Your task to perform on an android device: open app "Spotify" (install if not already installed) Image 0: 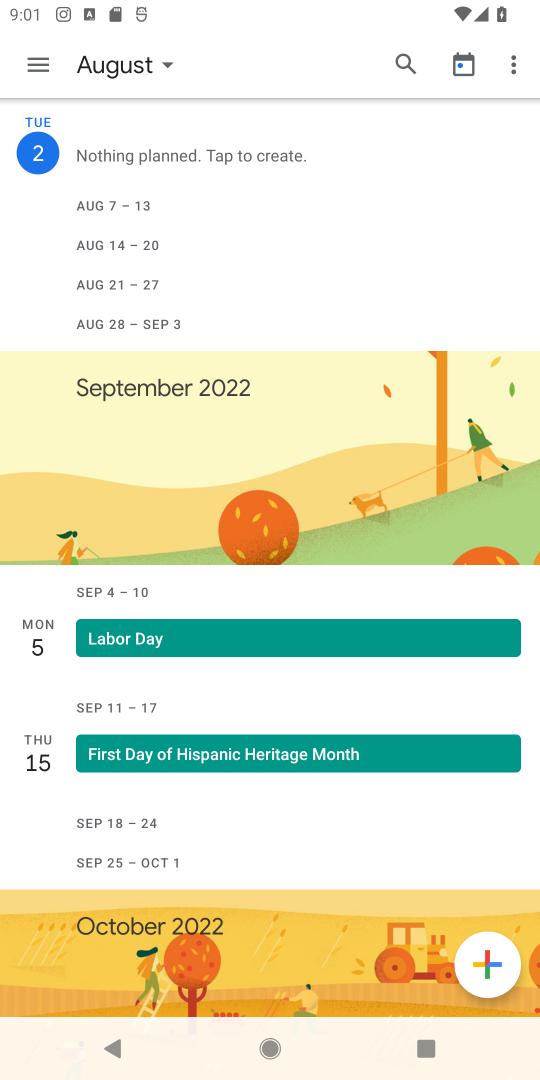
Step 0: press home button
Your task to perform on an android device: open app "Spotify" (install if not already installed) Image 1: 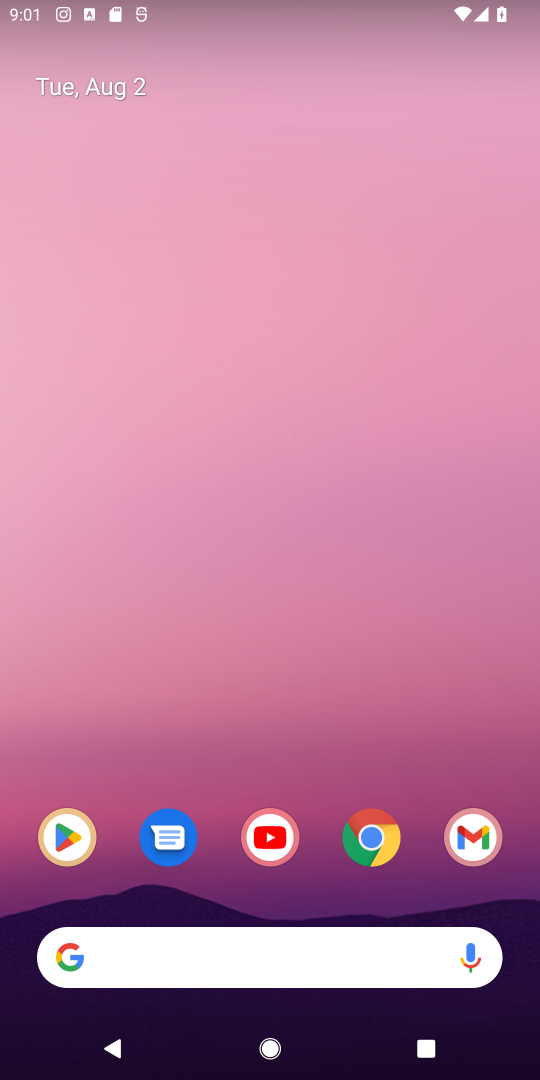
Step 1: click (66, 839)
Your task to perform on an android device: open app "Spotify" (install if not already installed) Image 2: 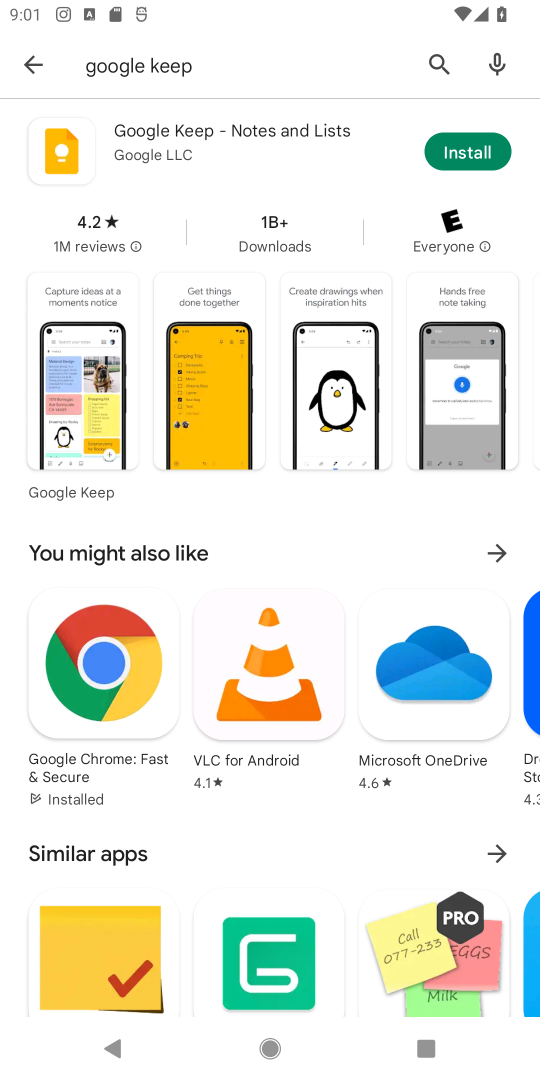
Step 2: click (428, 66)
Your task to perform on an android device: open app "Spotify" (install if not already installed) Image 3: 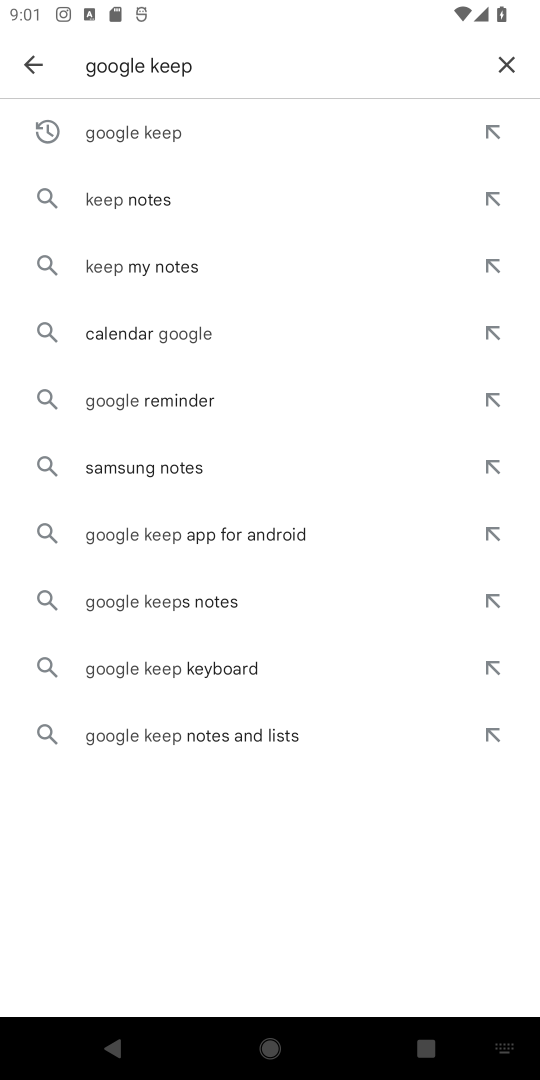
Step 3: click (505, 71)
Your task to perform on an android device: open app "Spotify" (install if not already installed) Image 4: 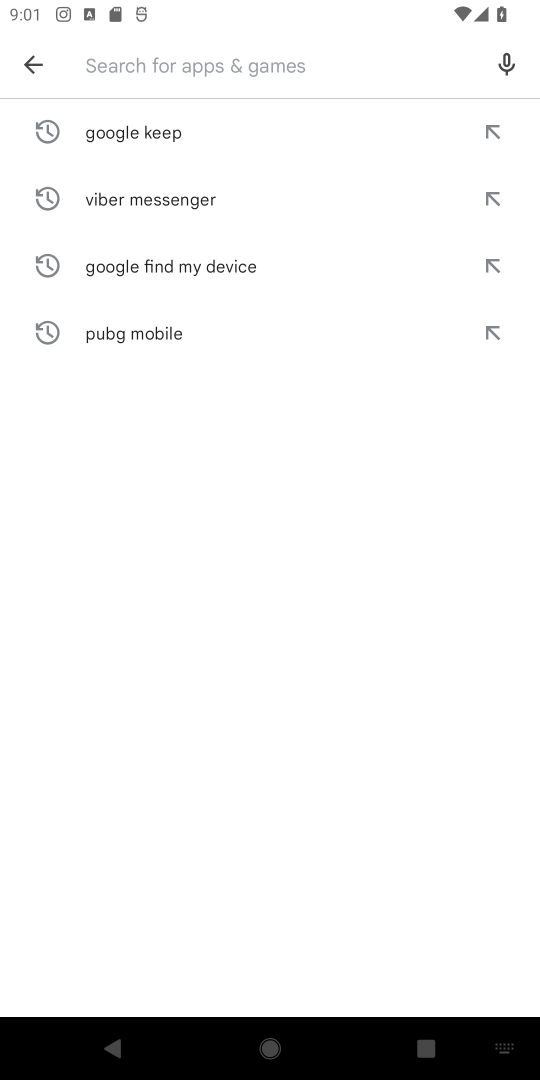
Step 4: type "Spotify"
Your task to perform on an android device: open app "Spotify" (install if not already installed) Image 5: 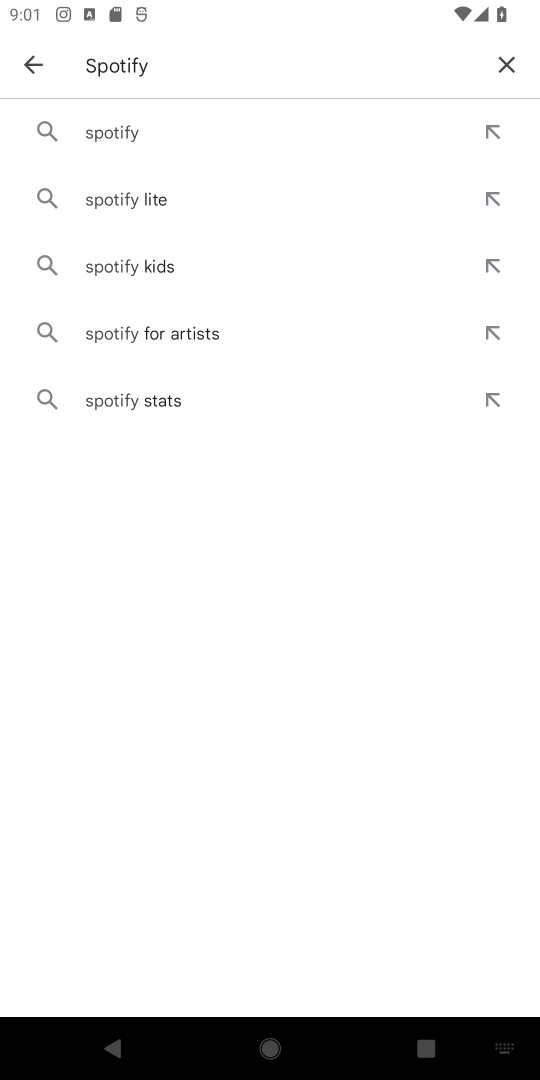
Step 5: click (120, 133)
Your task to perform on an android device: open app "Spotify" (install if not already installed) Image 6: 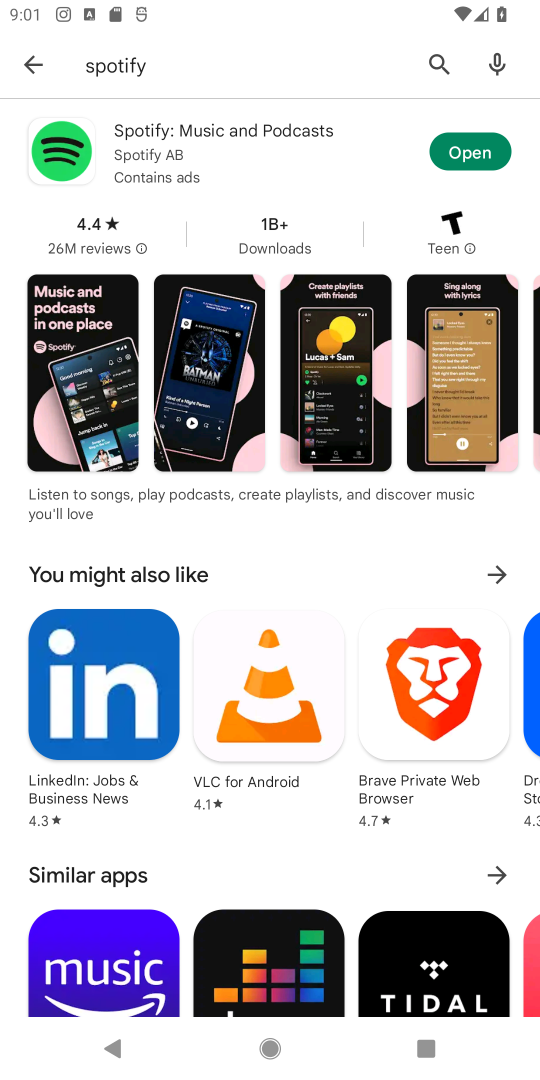
Step 6: click (450, 160)
Your task to perform on an android device: open app "Spotify" (install if not already installed) Image 7: 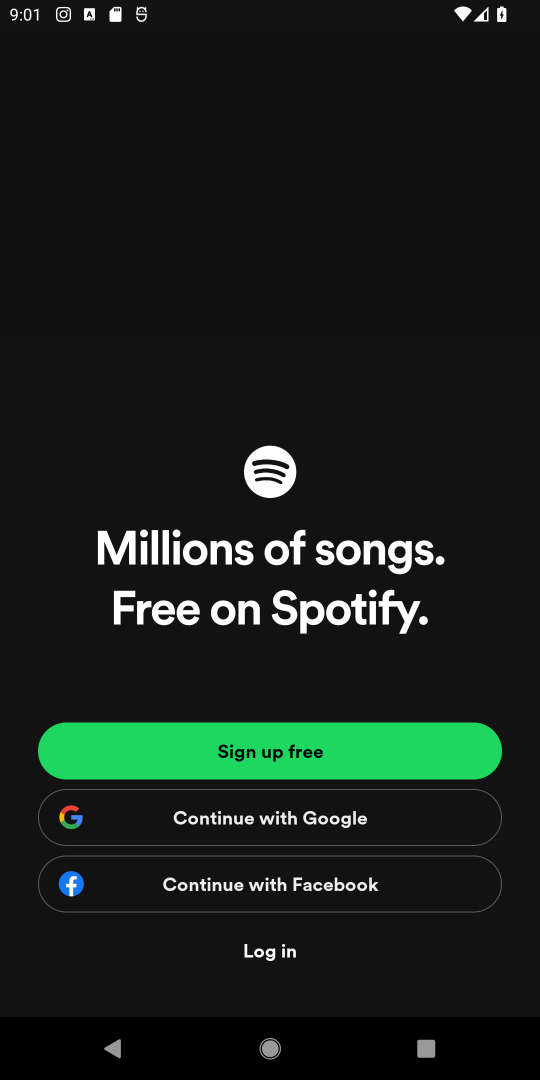
Step 7: task complete